Your task to perform on an android device: turn on translation in the chrome app Image 0: 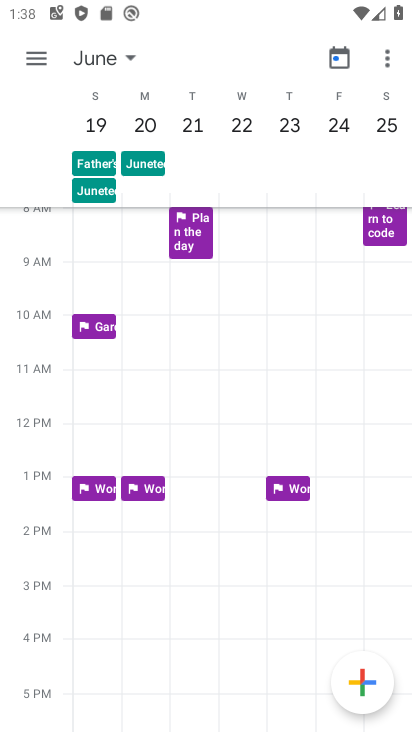
Step 0: press back button
Your task to perform on an android device: turn on translation in the chrome app Image 1: 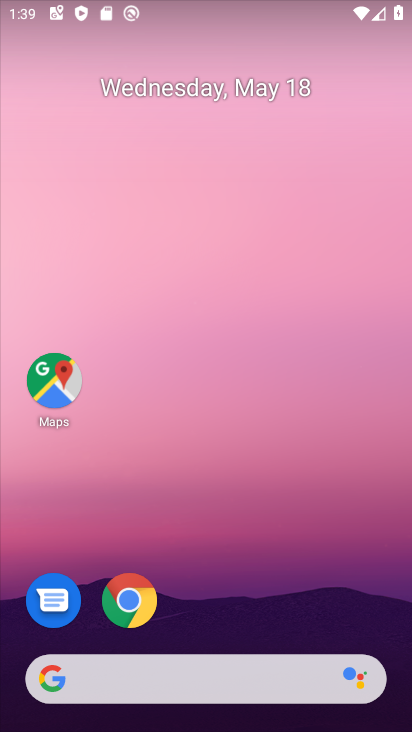
Step 1: click (129, 597)
Your task to perform on an android device: turn on translation in the chrome app Image 2: 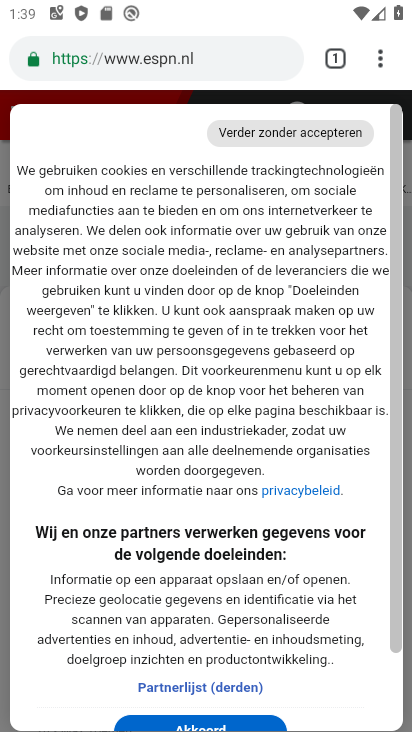
Step 2: click (381, 58)
Your task to perform on an android device: turn on translation in the chrome app Image 3: 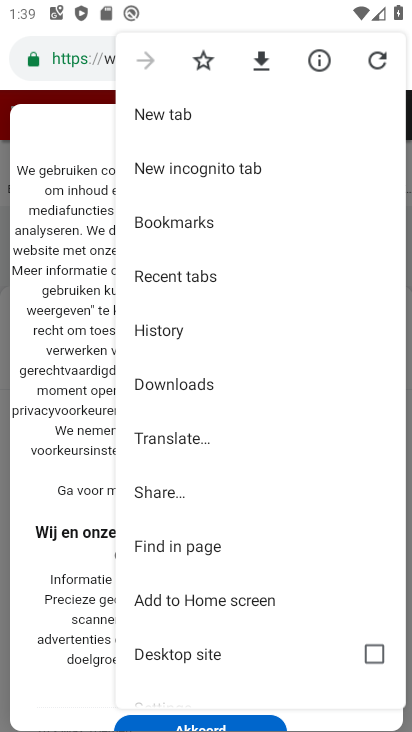
Step 3: drag from (207, 478) to (233, 399)
Your task to perform on an android device: turn on translation in the chrome app Image 4: 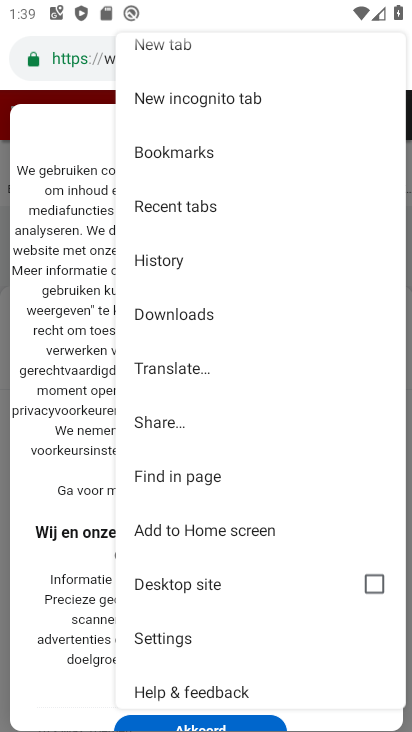
Step 4: drag from (177, 606) to (245, 510)
Your task to perform on an android device: turn on translation in the chrome app Image 5: 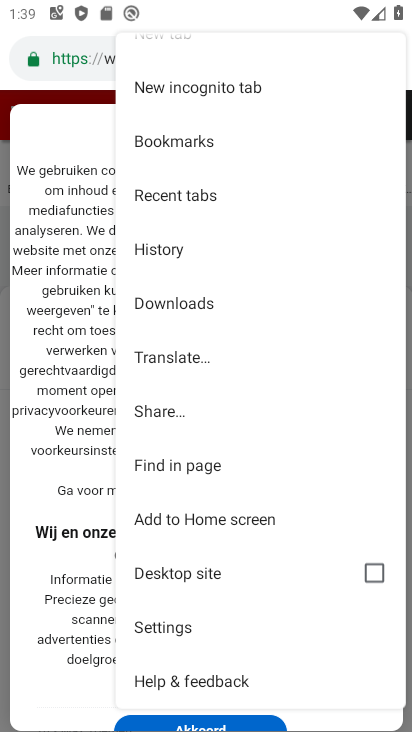
Step 5: click (163, 623)
Your task to perform on an android device: turn on translation in the chrome app Image 6: 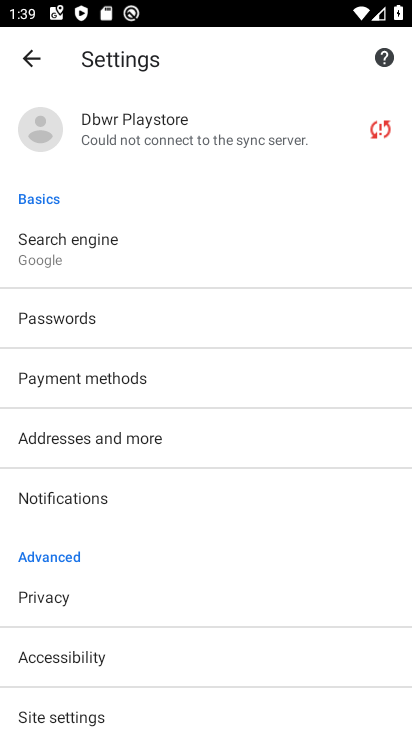
Step 6: drag from (129, 524) to (181, 439)
Your task to perform on an android device: turn on translation in the chrome app Image 7: 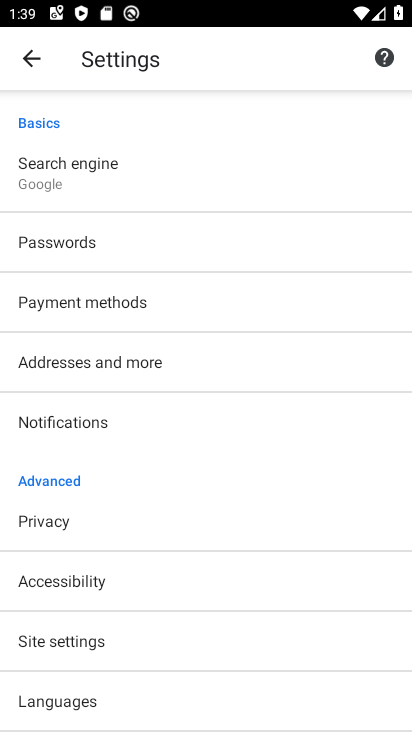
Step 7: drag from (126, 521) to (174, 450)
Your task to perform on an android device: turn on translation in the chrome app Image 8: 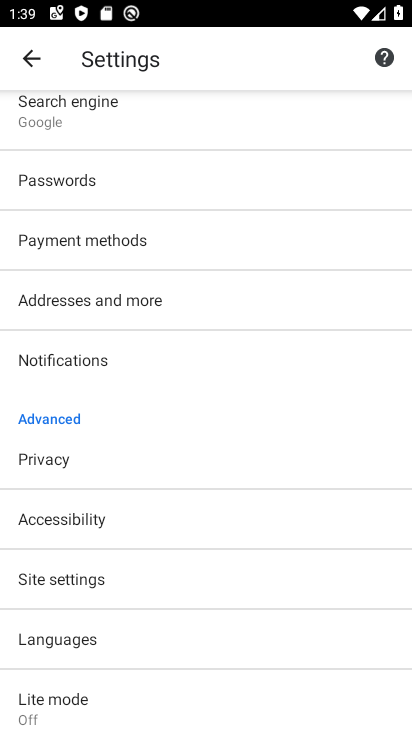
Step 8: click (52, 641)
Your task to perform on an android device: turn on translation in the chrome app Image 9: 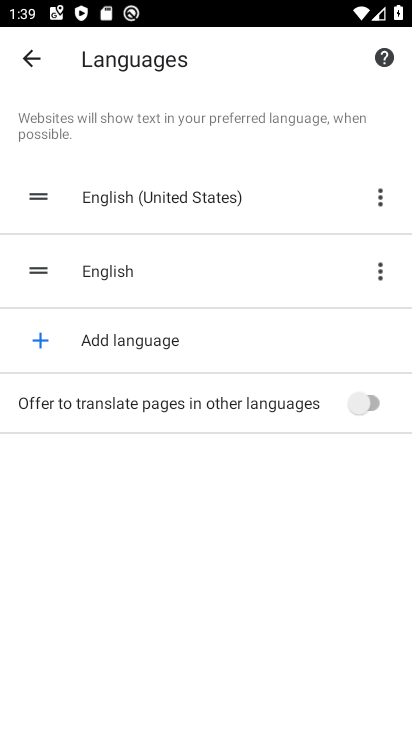
Step 9: click (353, 405)
Your task to perform on an android device: turn on translation in the chrome app Image 10: 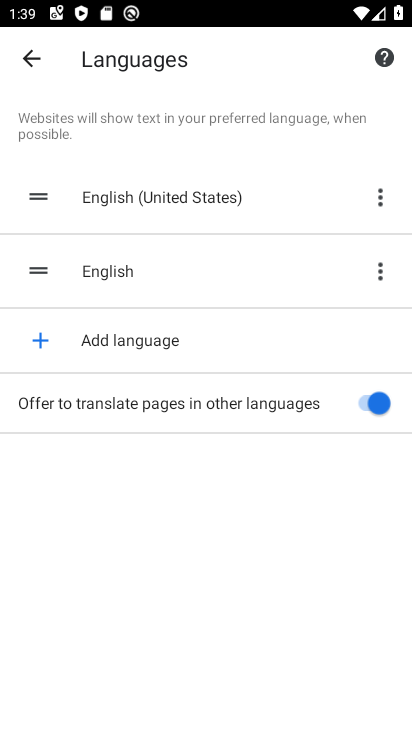
Step 10: task complete